Your task to perform on an android device: Is it going to rain tomorrow? Image 0: 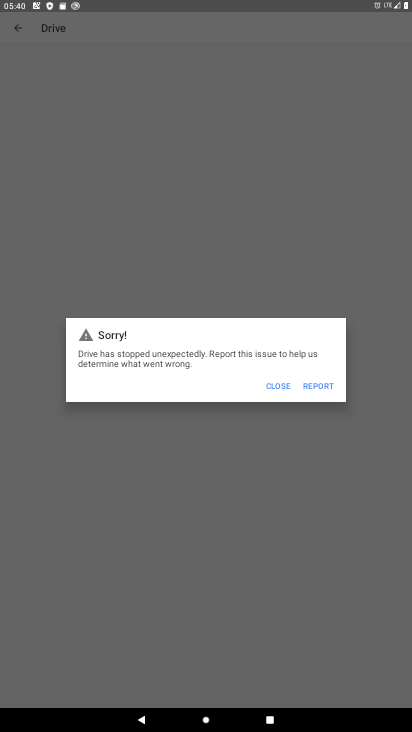
Step 0: press home button
Your task to perform on an android device: Is it going to rain tomorrow? Image 1: 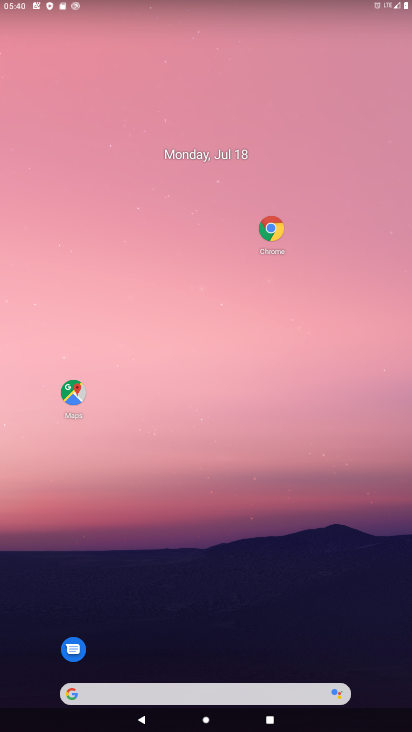
Step 1: click (191, 694)
Your task to perform on an android device: Is it going to rain tomorrow? Image 2: 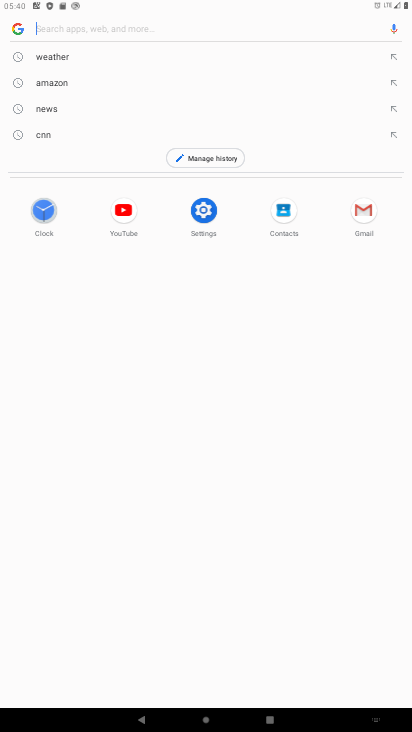
Step 2: click (58, 63)
Your task to perform on an android device: Is it going to rain tomorrow? Image 3: 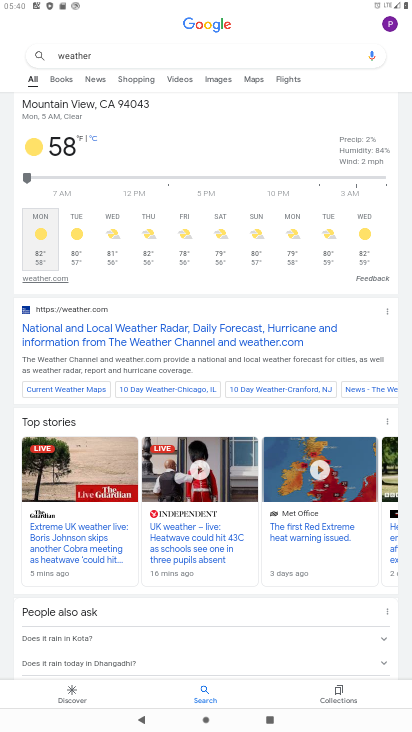
Step 3: task complete